Your task to perform on an android device: Go to Reddit.com Image 0: 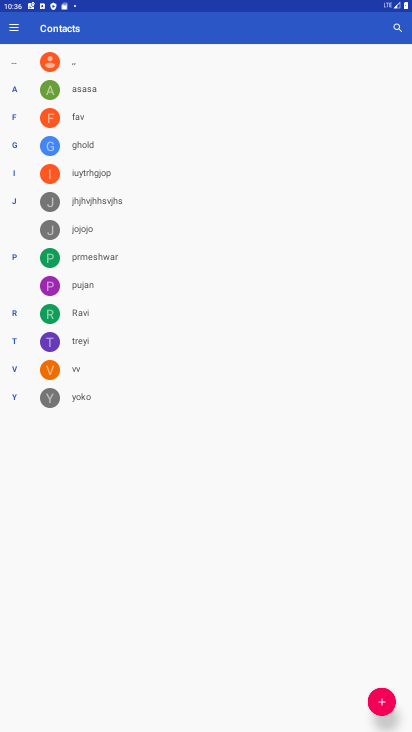
Step 0: press home button
Your task to perform on an android device: Go to Reddit.com Image 1: 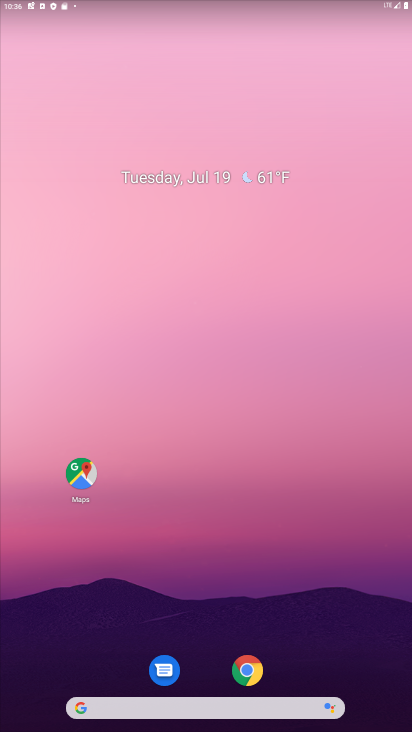
Step 1: click (212, 707)
Your task to perform on an android device: Go to Reddit.com Image 2: 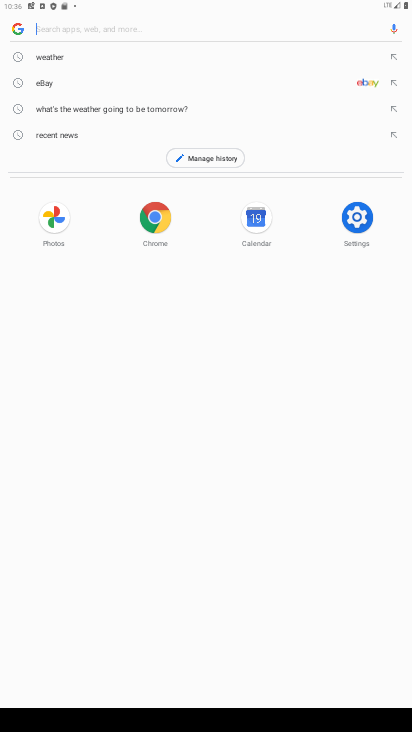
Step 2: type "reddit.com"
Your task to perform on an android device: Go to Reddit.com Image 3: 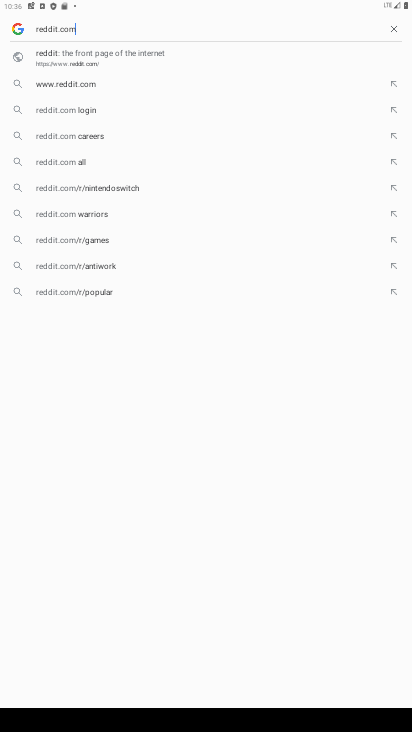
Step 3: click (235, 56)
Your task to perform on an android device: Go to Reddit.com Image 4: 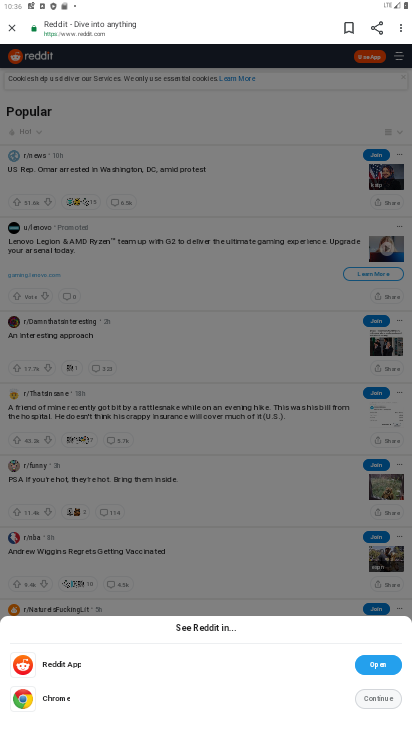
Step 4: task complete